Your task to perform on an android device: Open calendar and show me the first week of next month Image 0: 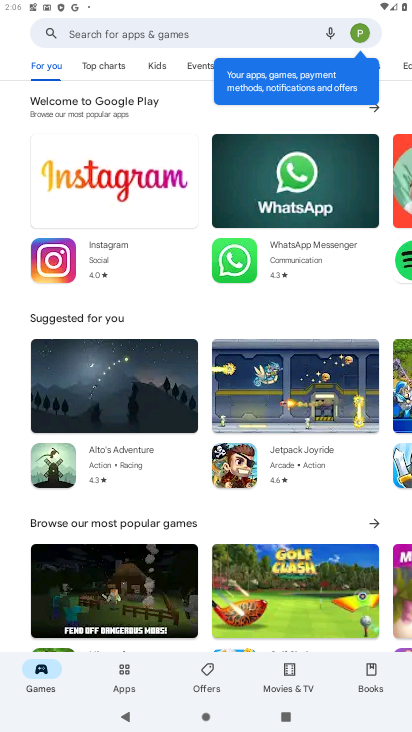
Step 0: press home button
Your task to perform on an android device: Open calendar and show me the first week of next month Image 1: 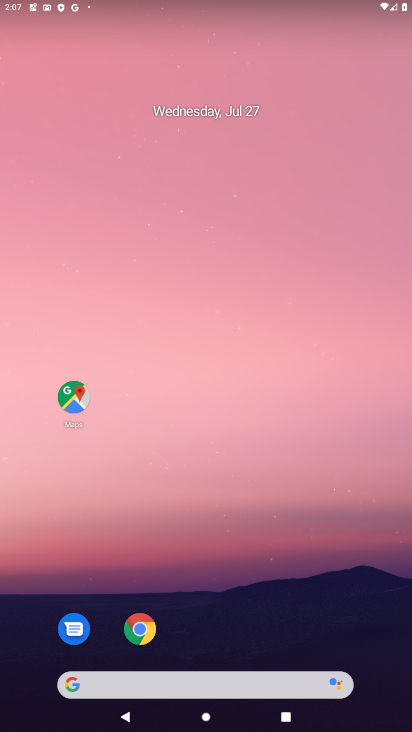
Step 1: drag from (293, 606) to (277, 89)
Your task to perform on an android device: Open calendar and show me the first week of next month Image 2: 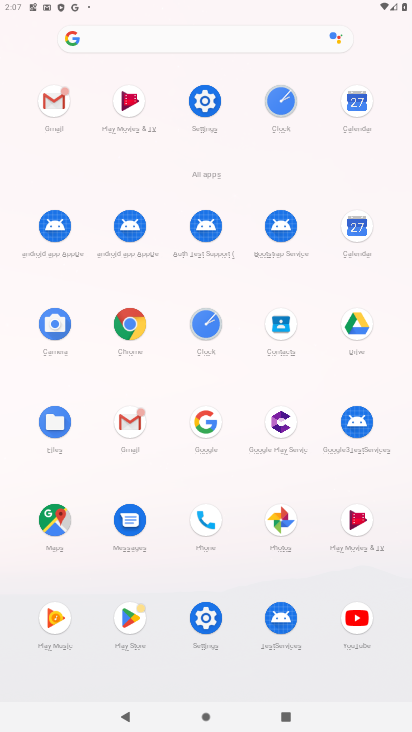
Step 2: click (351, 105)
Your task to perform on an android device: Open calendar and show me the first week of next month Image 3: 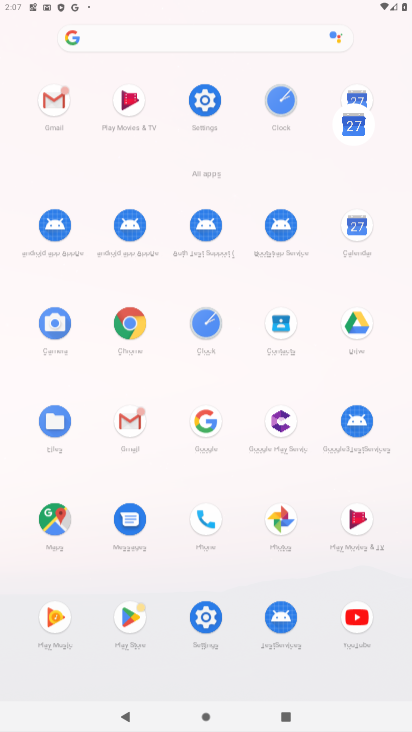
Step 3: task complete